Your task to perform on an android device: turn on translation in the chrome app Image 0: 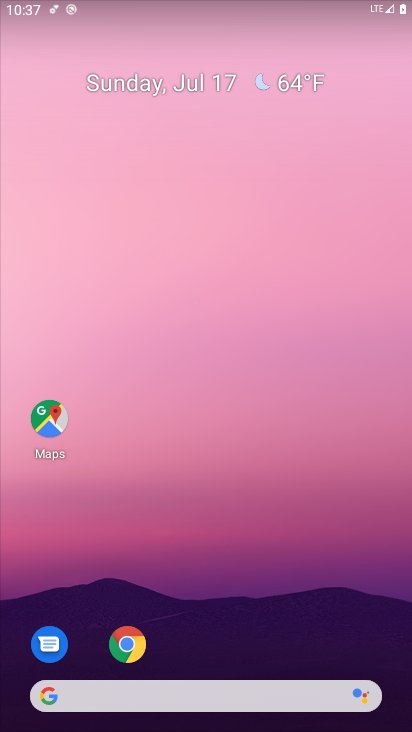
Step 0: click (131, 640)
Your task to perform on an android device: turn on translation in the chrome app Image 1: 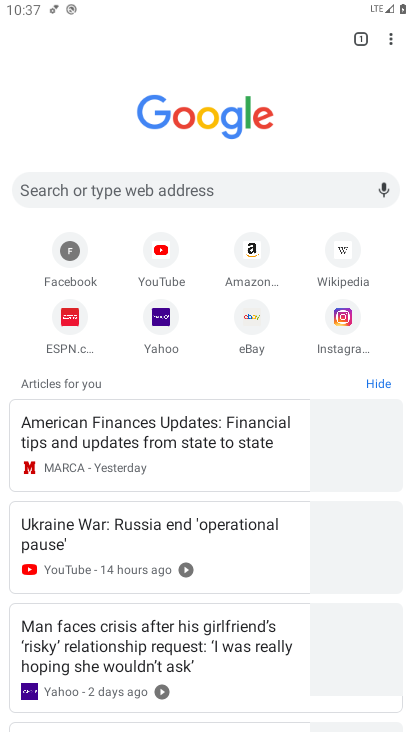
Step 1: drag from (391, 30) to (256, 329)
Your task to perform on an android device: turn on translation in the chrome app Image 2: 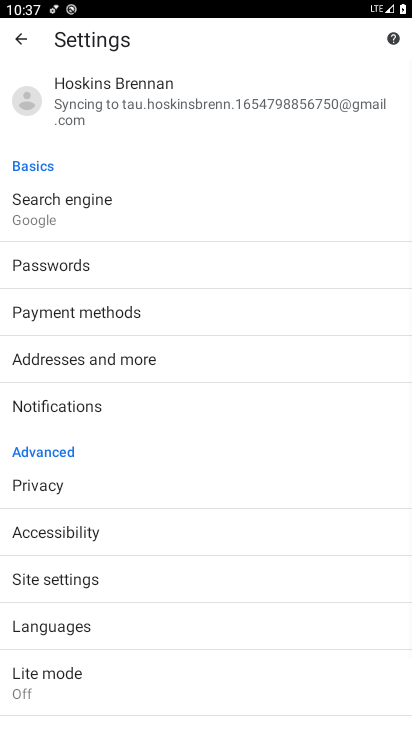
Step 2: click (71, 614)
Your task to perform on an android device: turn on translation in the chrome app Image 3: 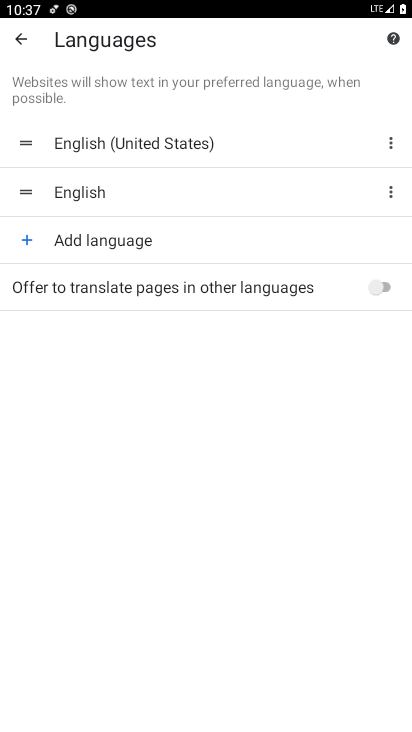
Step 3: click (378, 283)
Your task to perform on an android device: turn on translation in the chrome app Image 4: 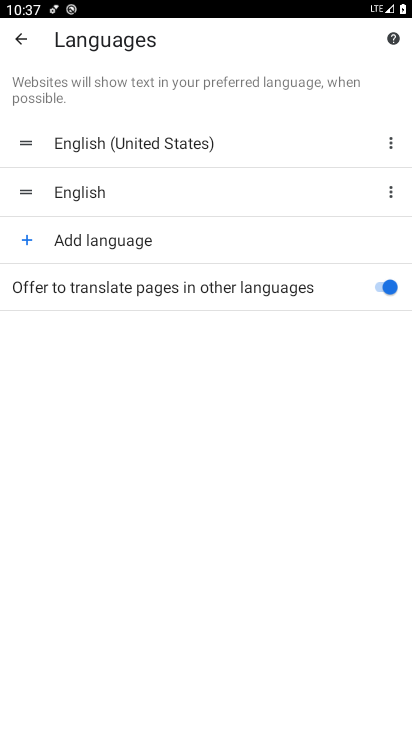
Step 4: task complete